Your task to perform on an android device: check out phone information Image 0: 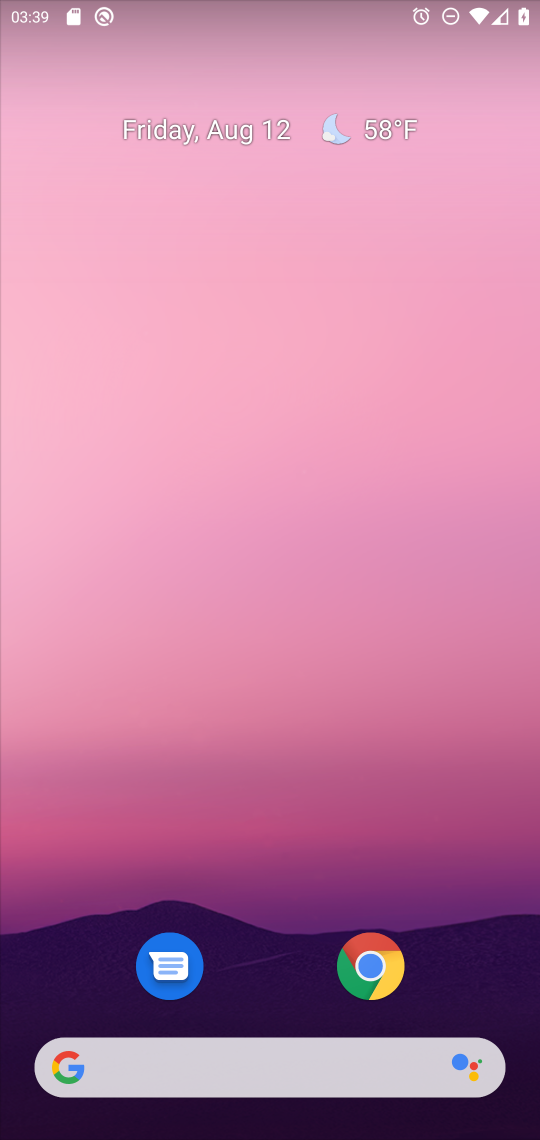
Step 0: drag from (256, 967) to (289, 27)
Your task to perform on an android device: check out phone information Image 1: 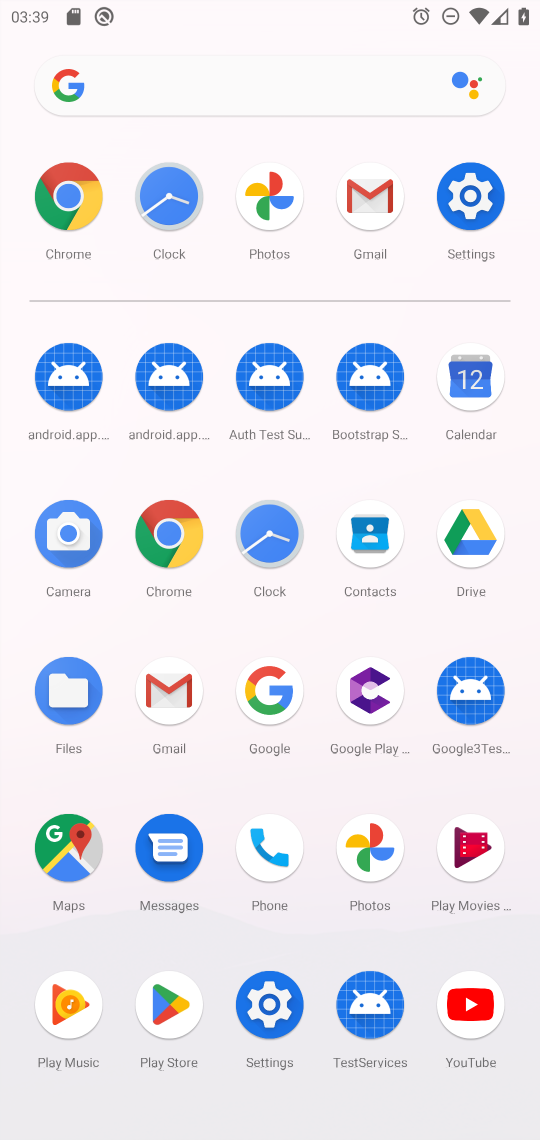
Step 1: click (265, 842)
Your task to perform on an android device: check out phone information Image 2: 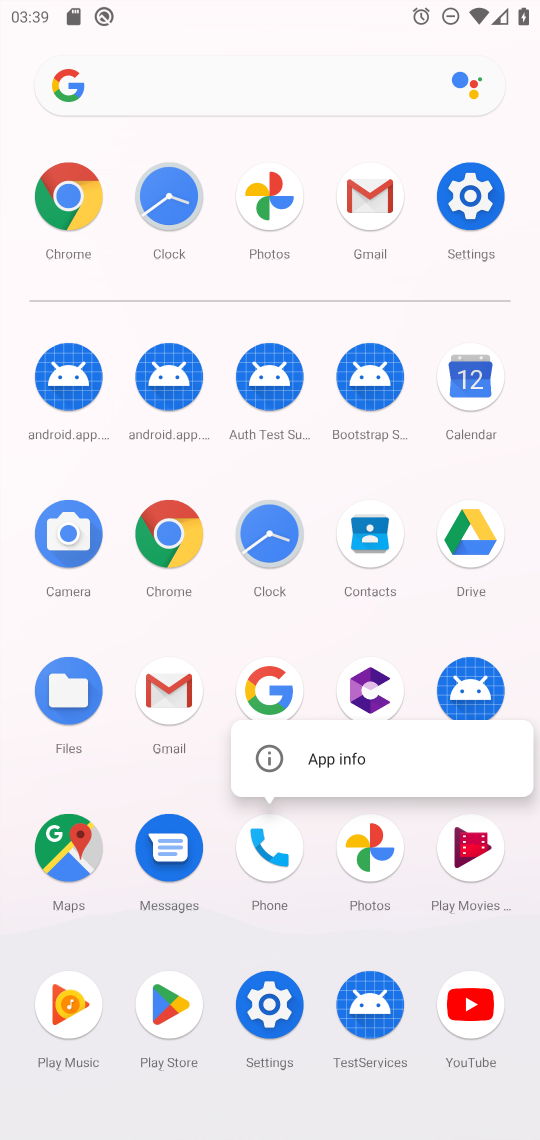
Step 2: click (333, 753)
Your task to perform on an android device: check out phone information Image 3: 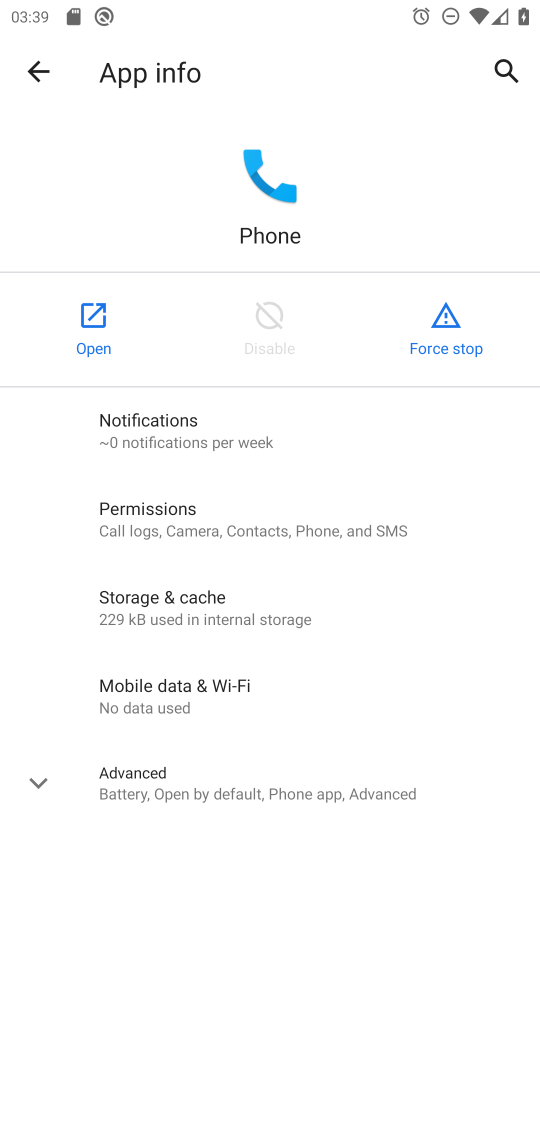
Step 3: task complete